Your task to perform on an android device: Clear the shopping cart on walmart.com. Add "logitech g pro" to the cart on walmart.com, then select checkout. Image 0: 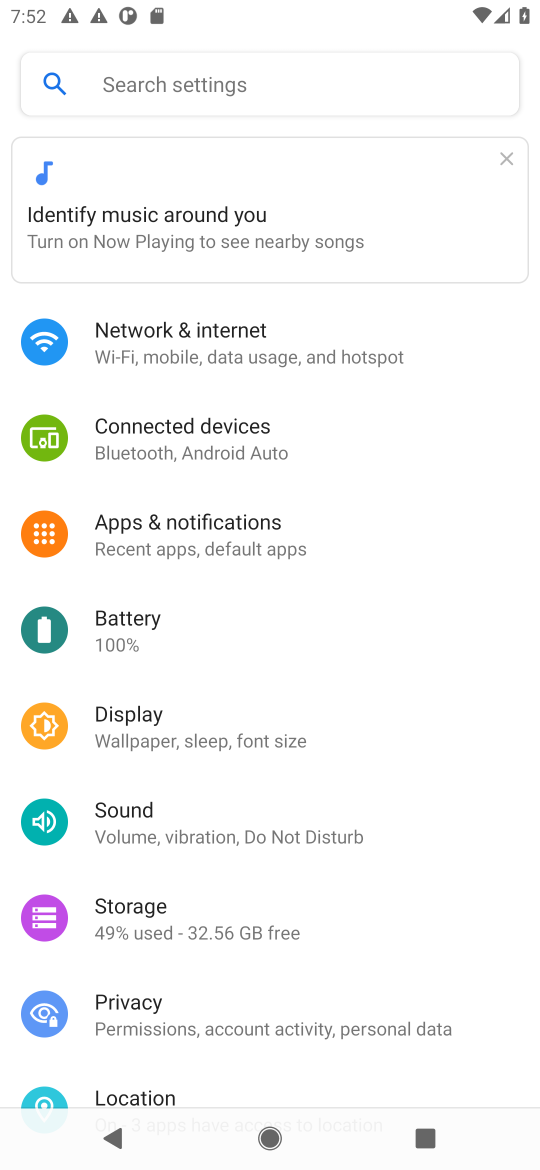
Step 0: press home button
Your task to perform on an android device: Clear the shopping cart on walmart.com. Add "logitech g pro" to the cart on walmart.com, then select checkout. Image 1: 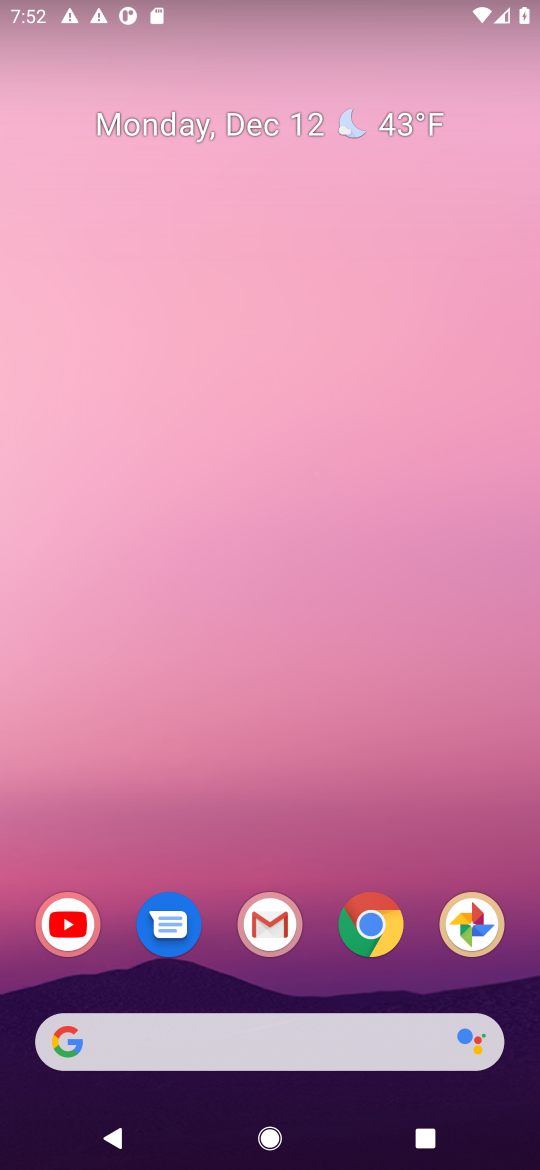
Step 1: drag from (247, 963) to (221, 3)
Your task to perform on an android device: Clear the shopping cart on walmart.com. Add "logitech g pro" to the cart on walmart.com, then select checkout. Image 2: 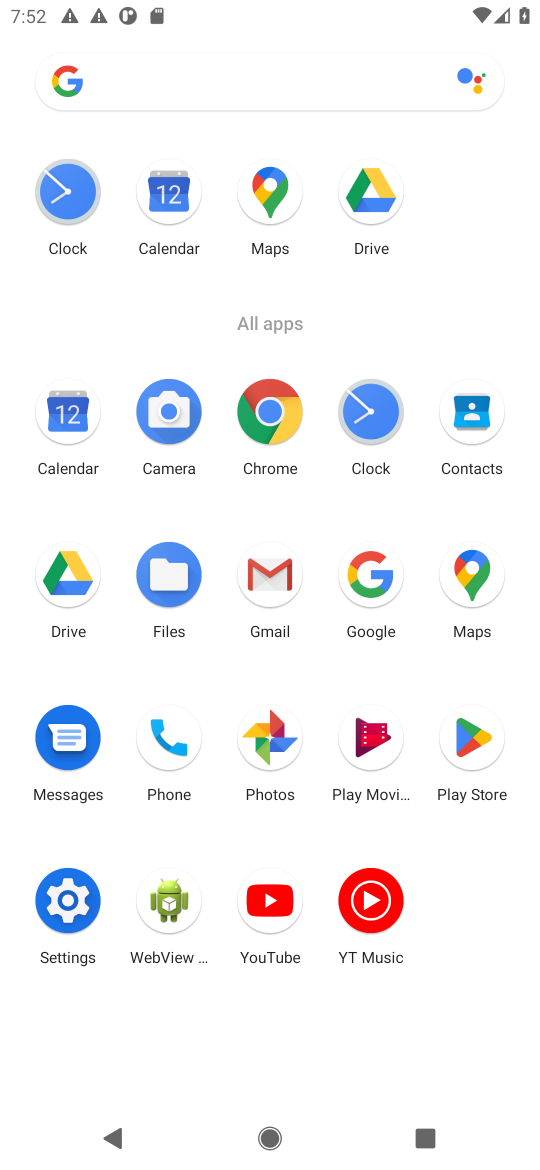
Step 2: click (379, 607)
Your task to perform on an android device: Clear the shopping cart on walmart.com. Add "logitech g pro" to the cart on walmart.com, then select checkout. Image 3: 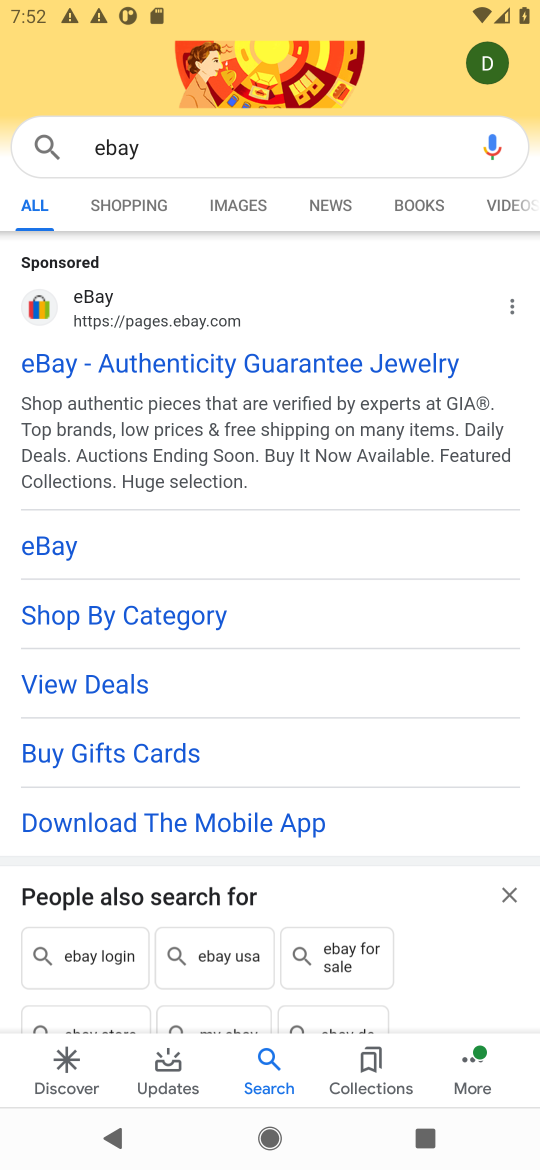
Step 3: click (189, 153)
Your task to perform on an android device: Clear the shopping cart on walmart.com. Add "logitech g pro" to the cart on walmart.com, then select checkout. Image 4: 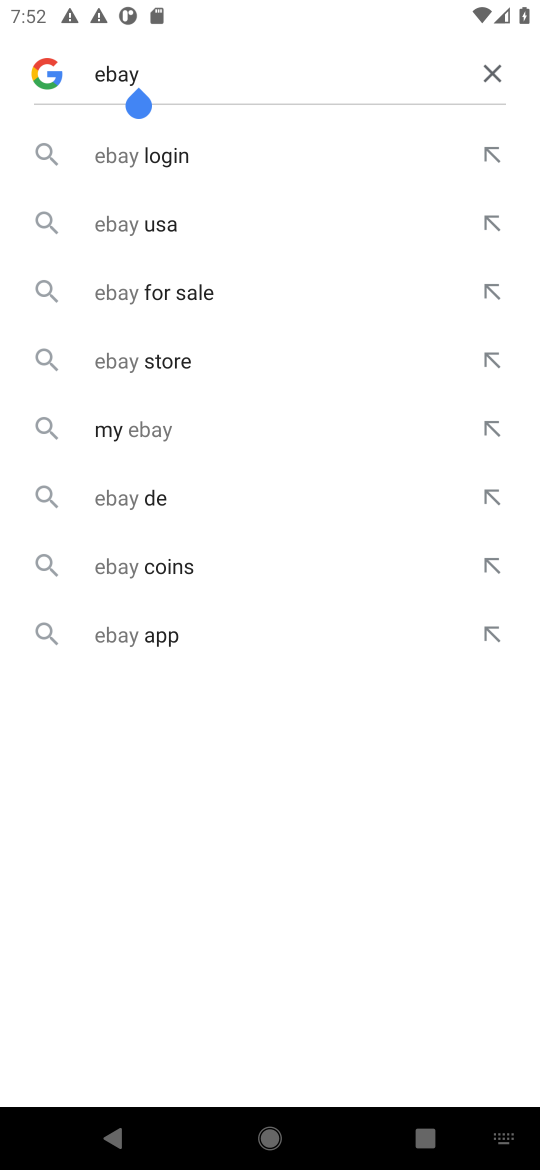
Step 4: click (491, 82)
Your task to perform on an android device: Clear the shopping cart on walmart.com. Add "logitech g pro" to the cart on walmart.com, then select checkout. Image 5: 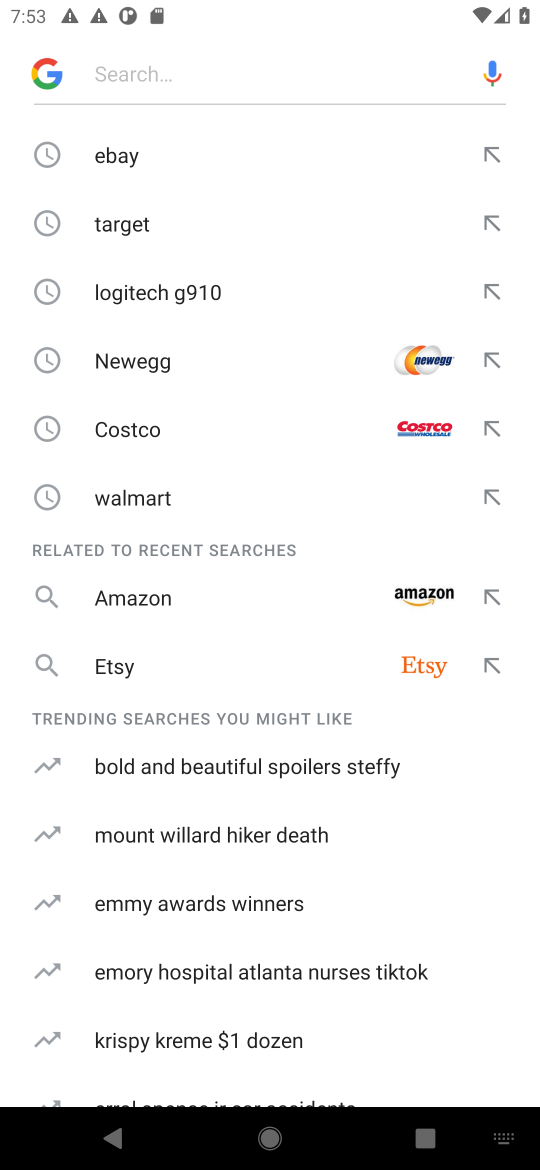
Step 5: type "walmart.com."
Your task to perform on an android device: Clear the shopping cart on walmart.com. Add "logitech g pro" to the cart on walmart.com, then select checkout. Image 6: 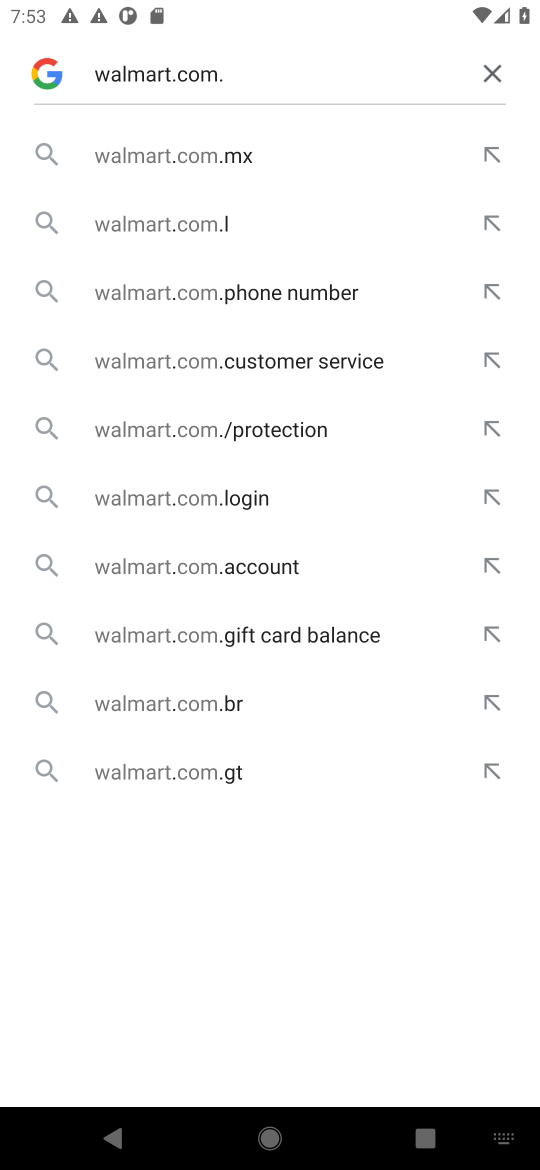
Step 6: click (501, 72)
Your task to perform on an android device: Clear the shopping cart on walmart.com. Add "logitech g pro" to the cart on walmart.com, then select checkout. Image 7: 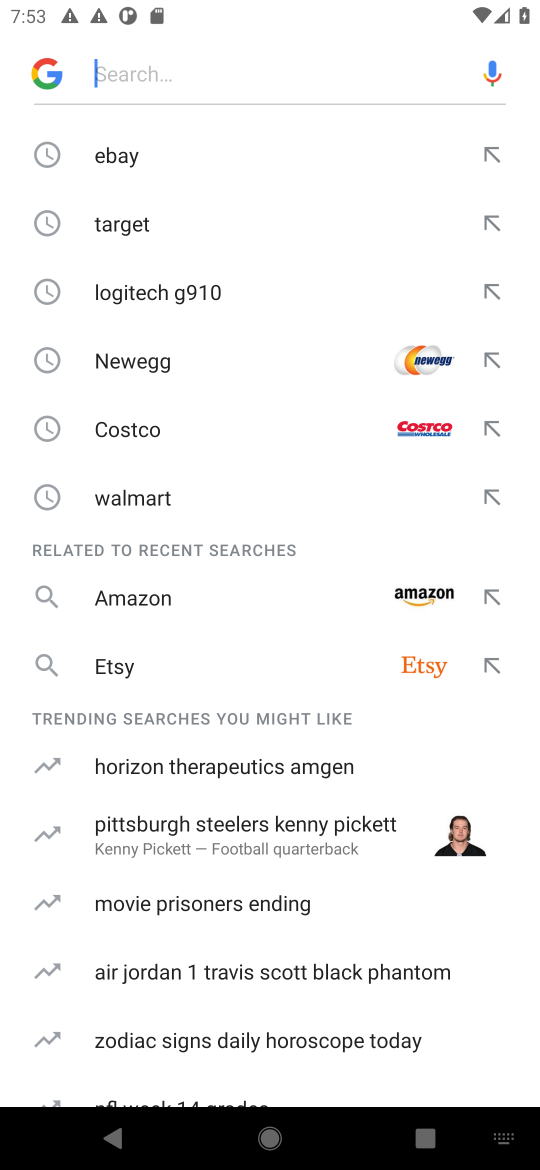
Step 7: type "walmart.com"
Your task to perform on an android device: Clear the shopping cart on walmart.com. Add "logitech g pro" to the cart on walmart.com, then select checkout. Image 8: 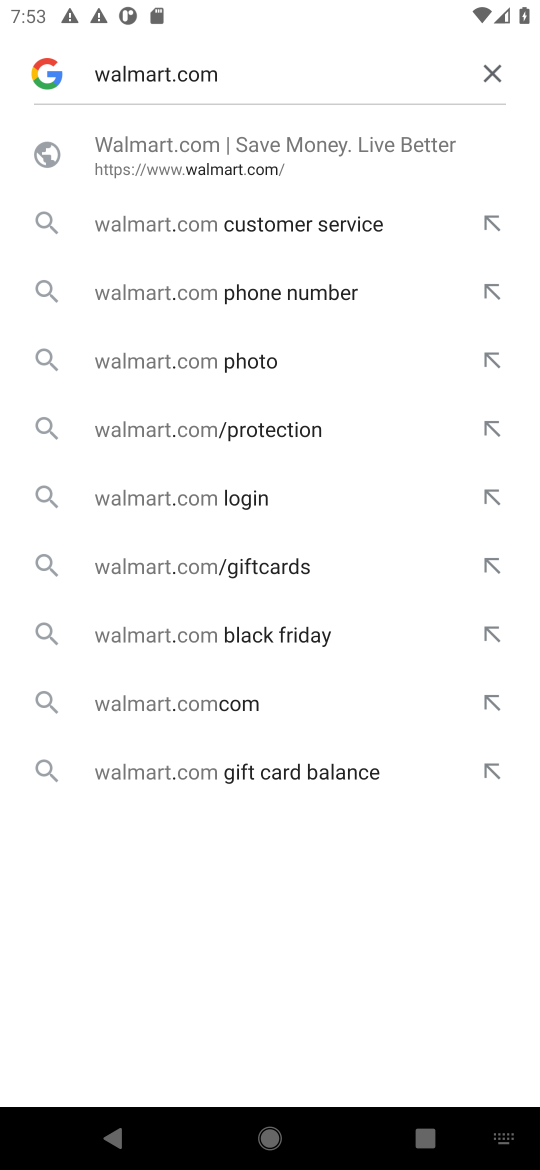
Step 8: click (242, 158)
Your task to perform on an android device: Clear the shopping cart on walmart.com. Add "logitech g pro" to the cart on walmart.com, then select checkout. Image 9: 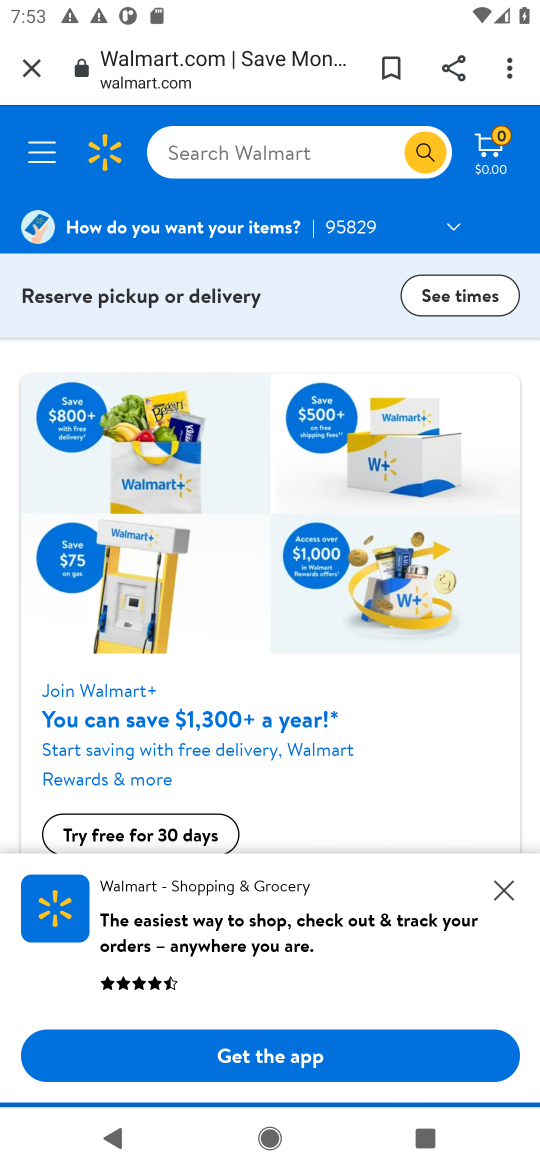
Step 9: click (264, 129)
Your task to perform on an android device: Clear the shopping cart on walmart.com. Add "logitech g pro" to the cart on walmart.com, then select checkout. Image 10: 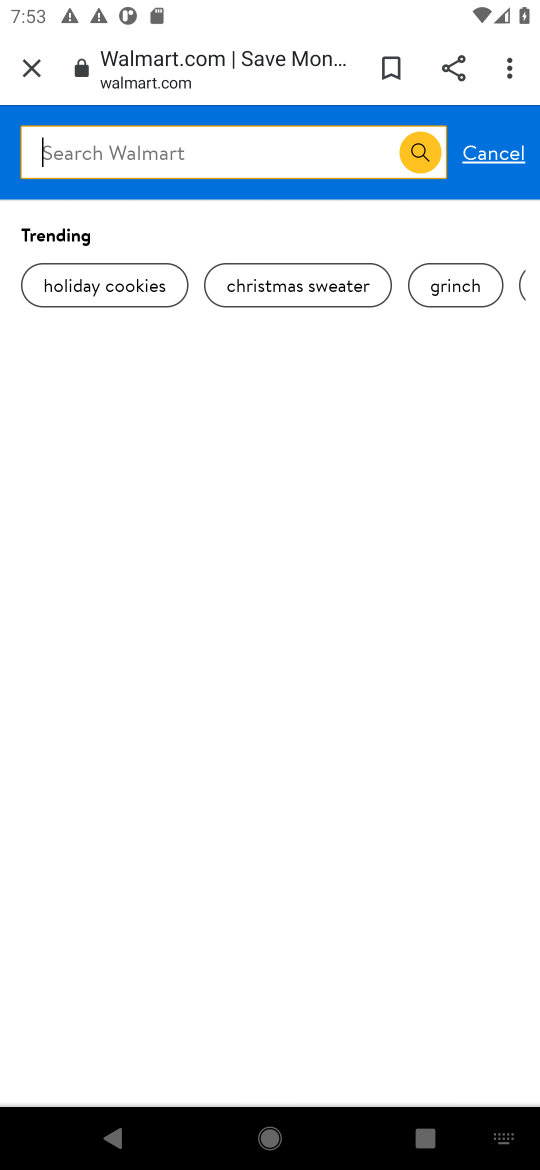
Step 10: type "logitech g pro"
Your task to perform on an android device: Clear the shopping cart on walmart.com. Add "logitech g pro" to the cart on walmart.com, then select checkout. Image 11: 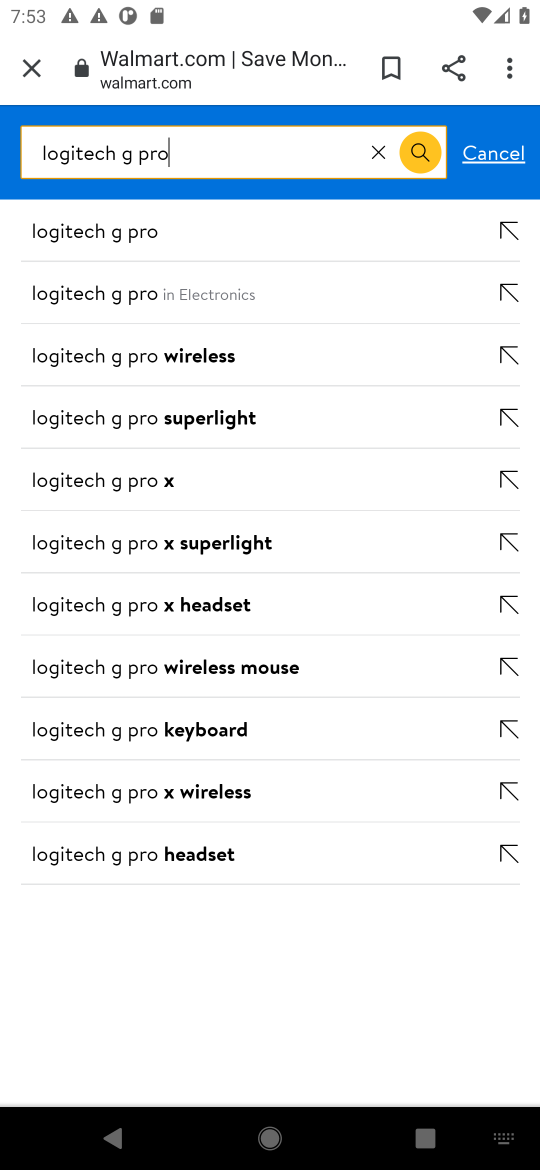
Step 11: click (104, 231)
Your task to perform on an android device: Clear the shopping cart on walmart.com. Add "logitech g pro" to the cart on walmart.com, then select checkout. Image 12: 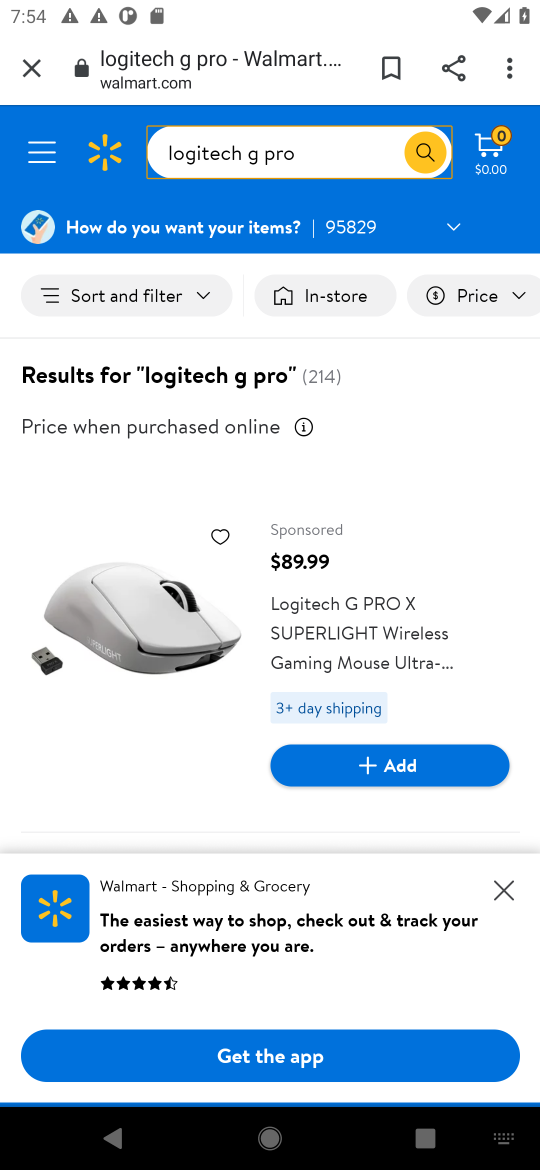
Step 12: click (500, 891)
Your task to perform on an android device: Clear the shopping cart on walmart.com. Add "logitech g pro" to the cart on walmart.com, then select checkout. Image 13: 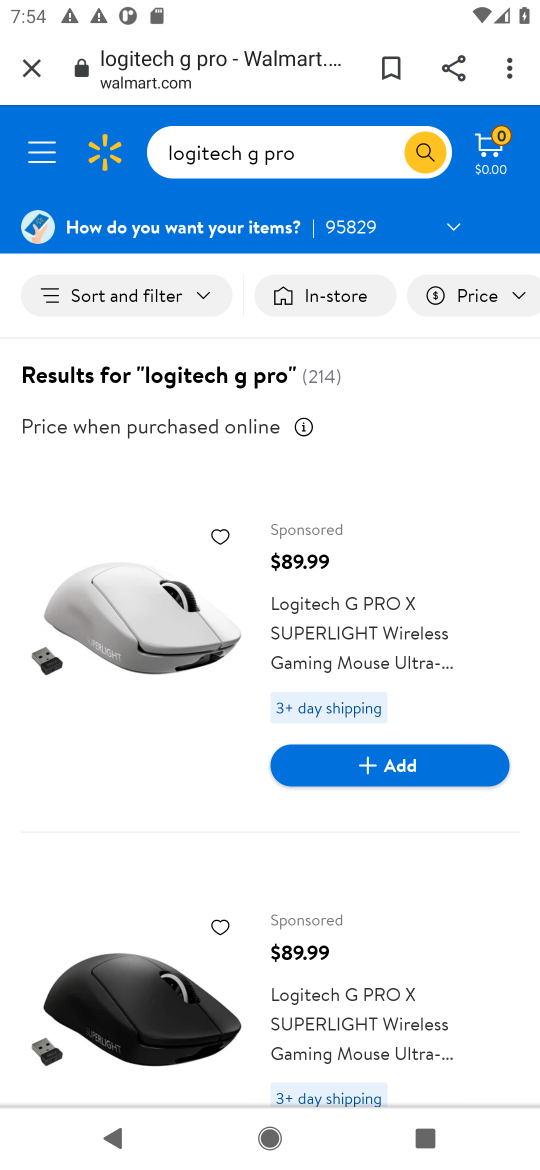
Step 13: click (387, 766)
Your task to perform on an android device: Clear the shopping cart on walmart.com. Add "logitech g pro" to the cart on walmart.com, then select checkout. Image 14: 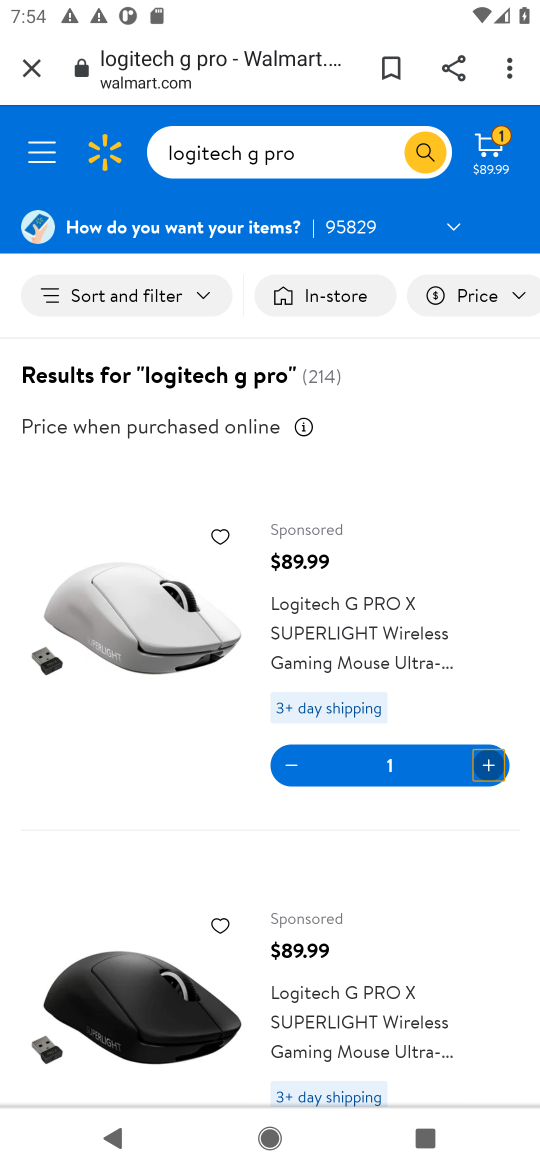
Step 14: click (494, 141)
Your task to perform on an android device: Clear the shopping cart on walmart.com. Add "logitech g pro" to the cart on walmart.com, then select checkout. Image 15: 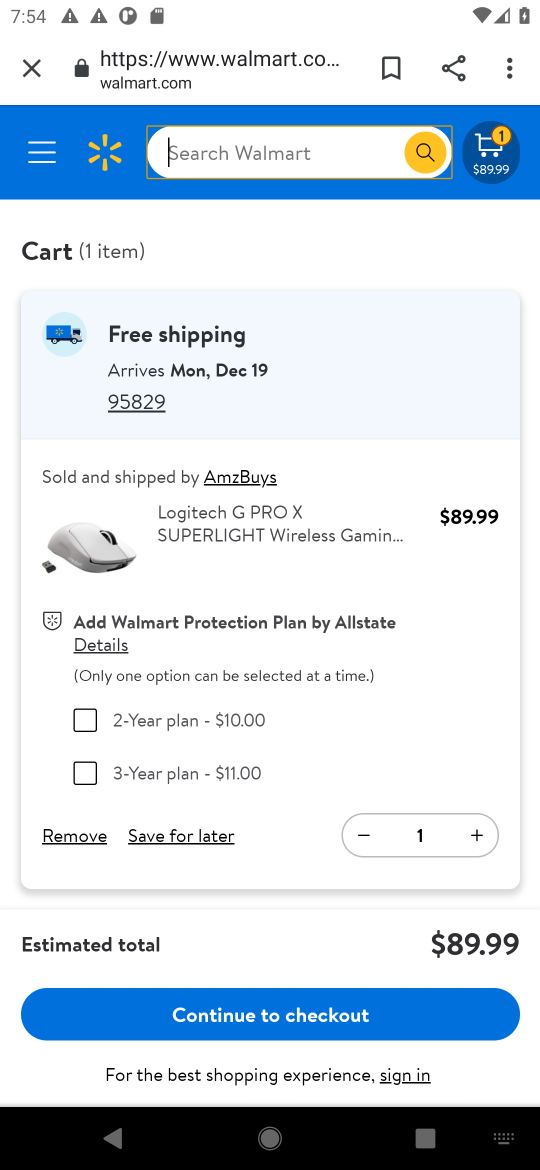
Step 15: click (265, 1012)
Your task to perform on an android device: Clear the shopping cart on walmart.com. Add "logitech g pro" to the cart on walmart.com, then select checkout. Image 16: 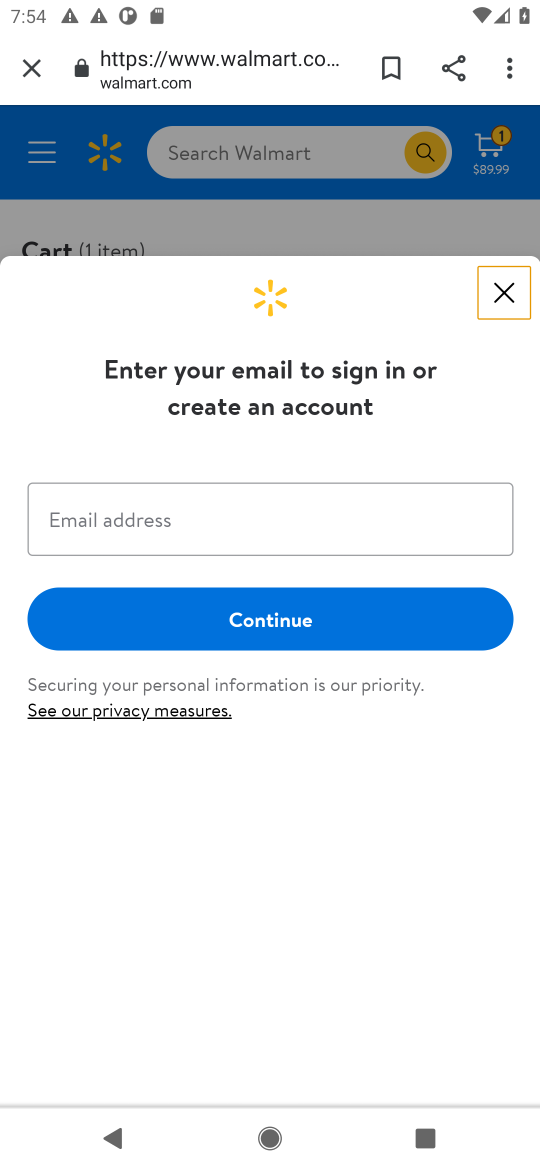
Step 16: task complete